Your task to perform on an android device: Go to network settings Image 0: 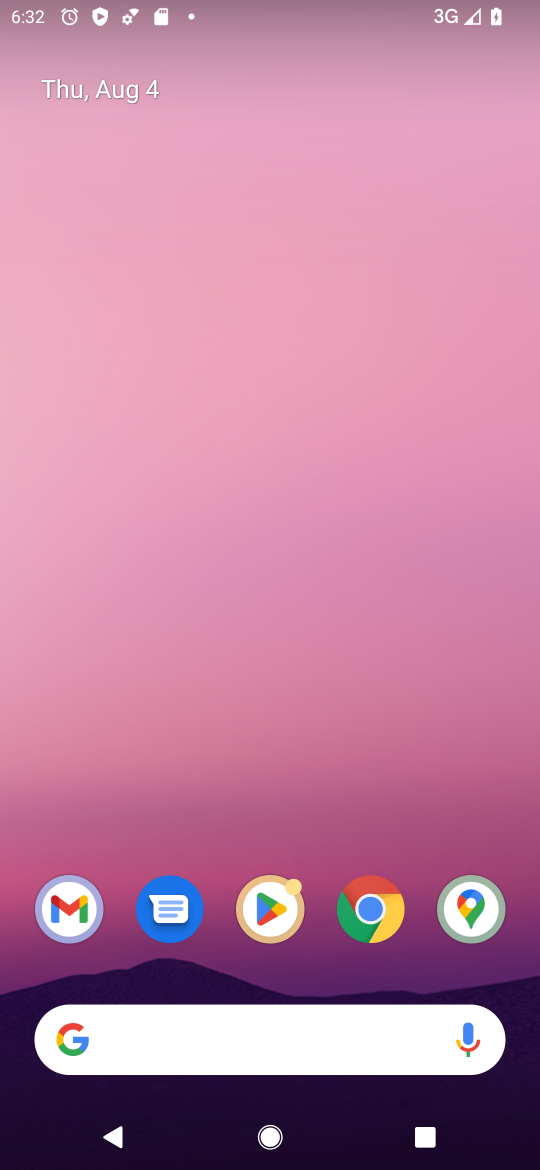
Step 0: drag from (245, 766) to (336, 90)
Your task to perform on an android device: Go to network settings Image 1: 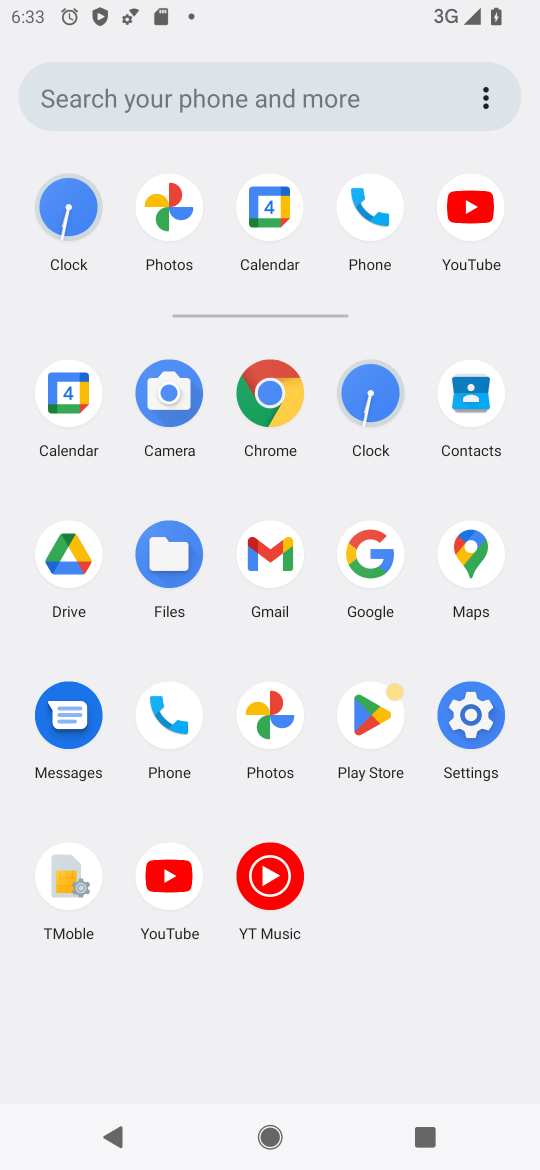
Step 1: click (483, 718)
Your task to perform on an android device: Go to network settings Image 2: 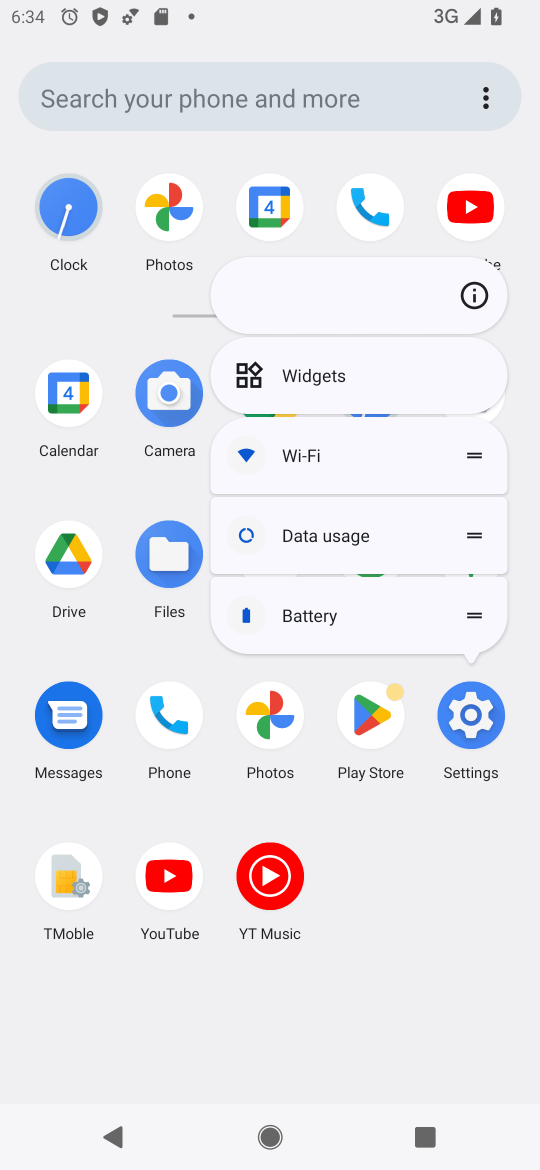
Step 2: click (474, 734)
Your task to perform on an android device: Go to network settings Image 3: 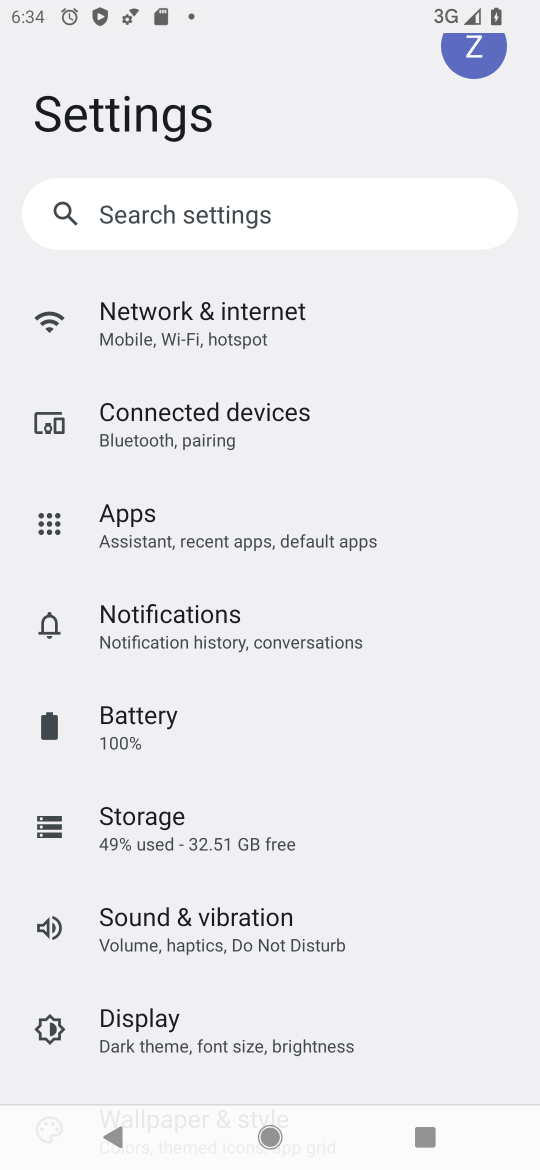
Step 3: click (254, 310)
Your task to perform on an android device: Go to network settings Image 4: 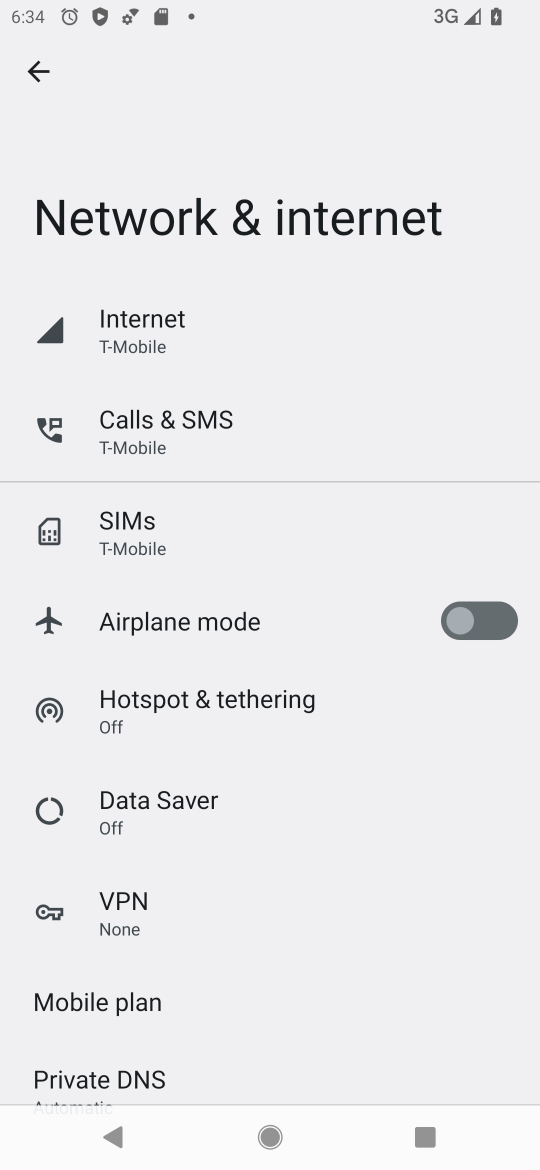
Step 4: click (164, 341)
Your task to perform on an android device: Go to network settings Image 5: 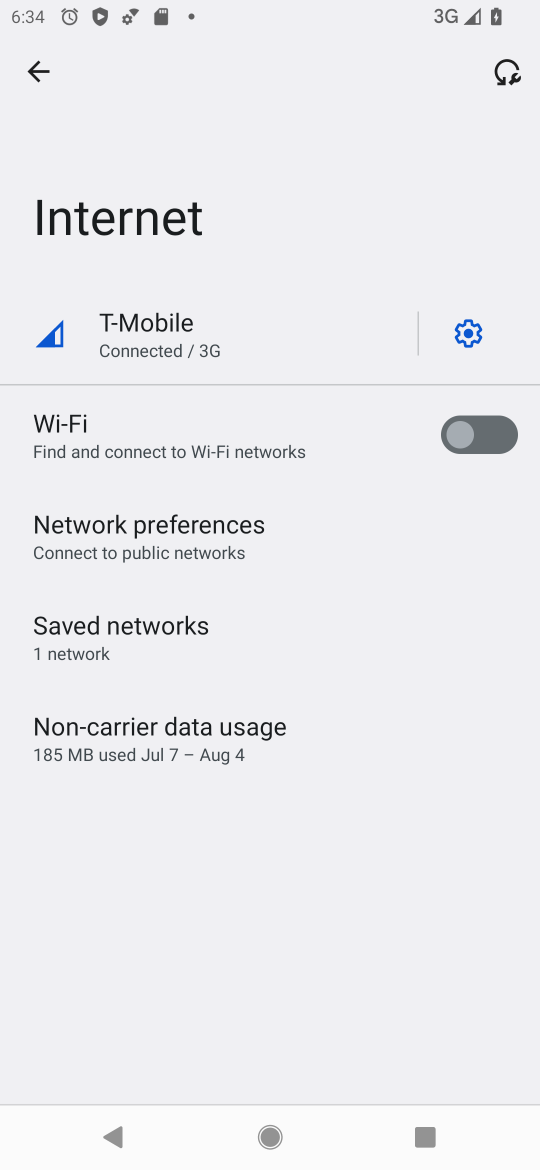
Step 5: task complete